Your task to perform on an android device: change the upload size in google photos Image 0: 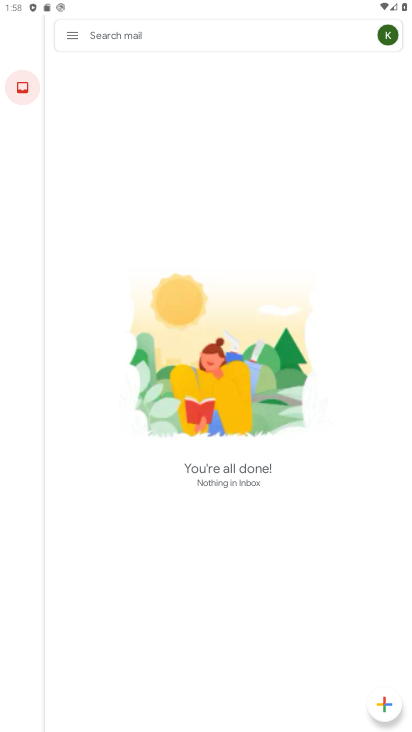
Step 0: press home button
Your task to perform on an android device: change the upload size in google photos Image 1: 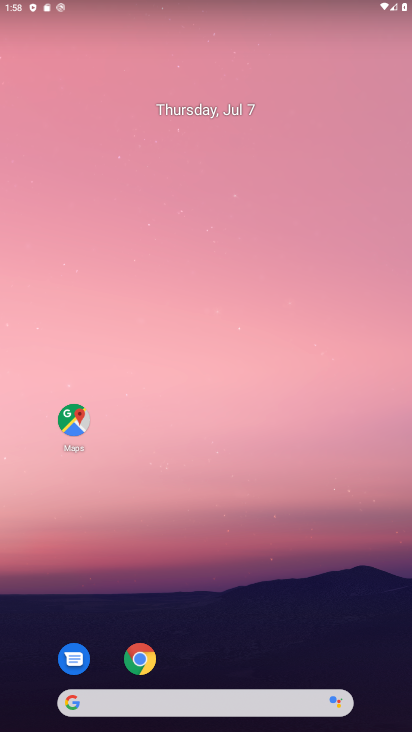
Step 1: drag from (258, 601) to (298, 70)
Your task to perform on an android device: change the upload size in google photos Image 2: 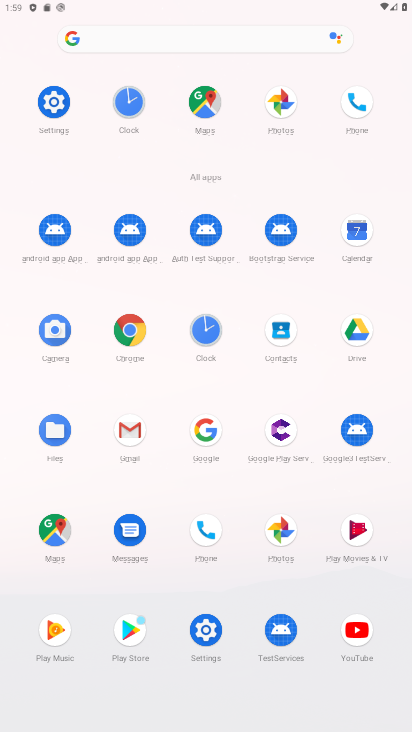
Step 2: click (286, 530)
Your task to perform on an android device: change the upload size in google photos Image 3: 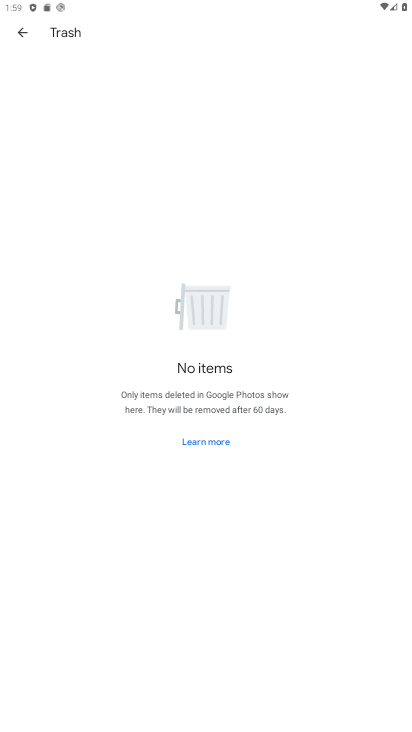
Step 3: click (15, 31)
Your task to perform on an android device: change the upload size in google photos Image 4: 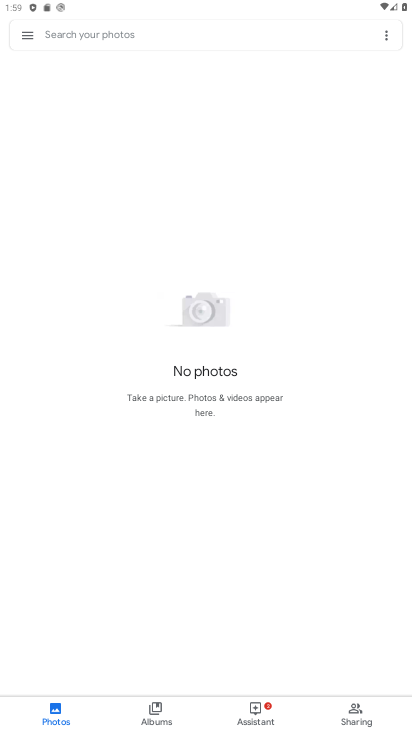
Step 4: click (20, 39)
Your task to perform on an android device: change the upload size in google photos Image 5: 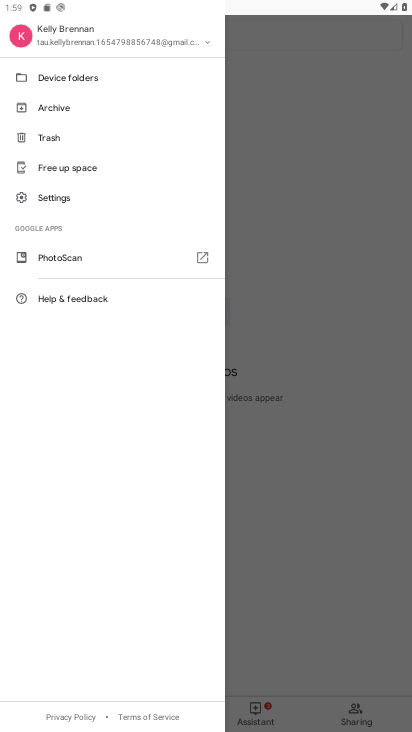
Step 5: click (78, 196)
Your task to perform on an android device: change the upload size in google photos Image 6: 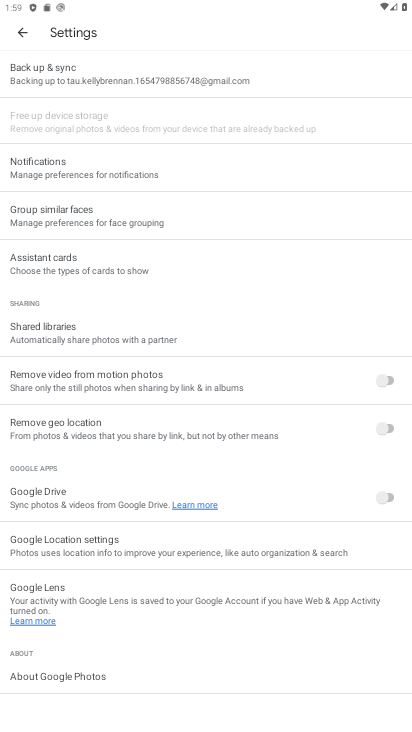
Step 6: click (144, 83)
Your task to perform on an android device: change the upload size in google photos Image 7: 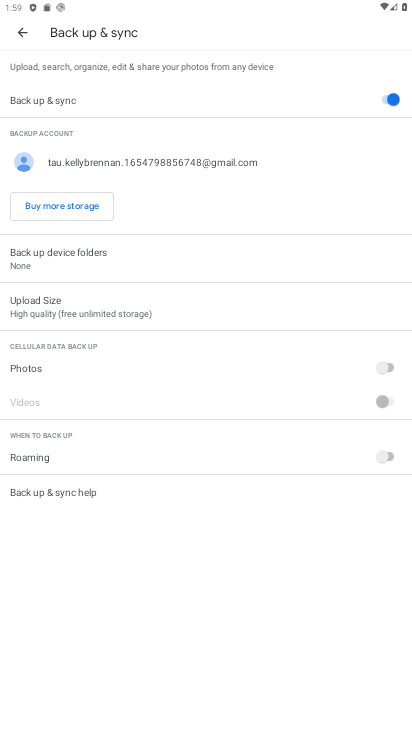
Step 7: click (110, 308)
Your task to perform on an android device: change the upload size in google photos Image 8: 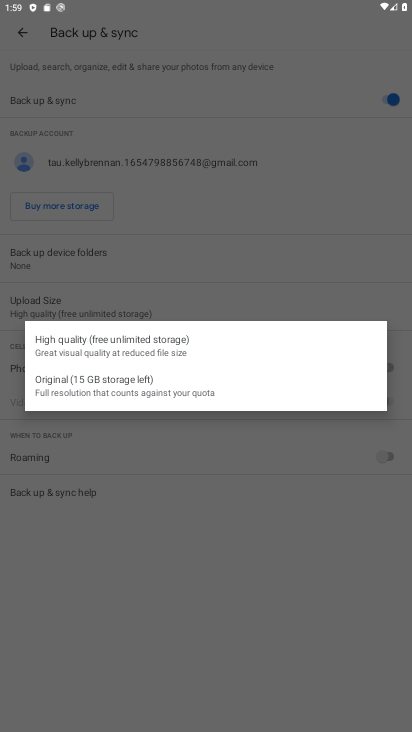
Step 8: click (143, 377)
Your task to perform on an android device: change the upload size in google photos Image 9: 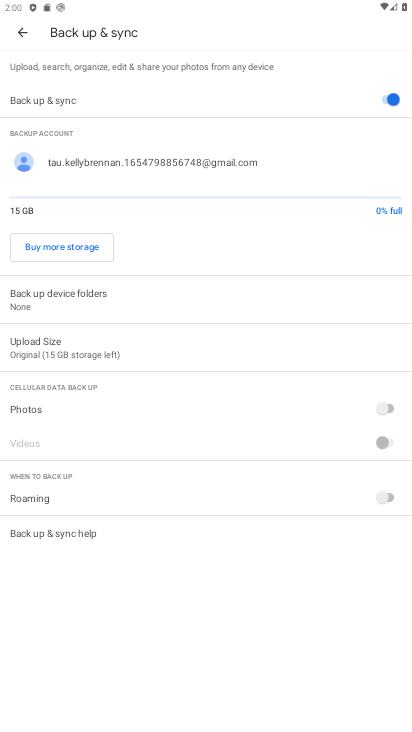
Step 9: task complete